Your task to perform on an android device: Open Amazon Image 0: 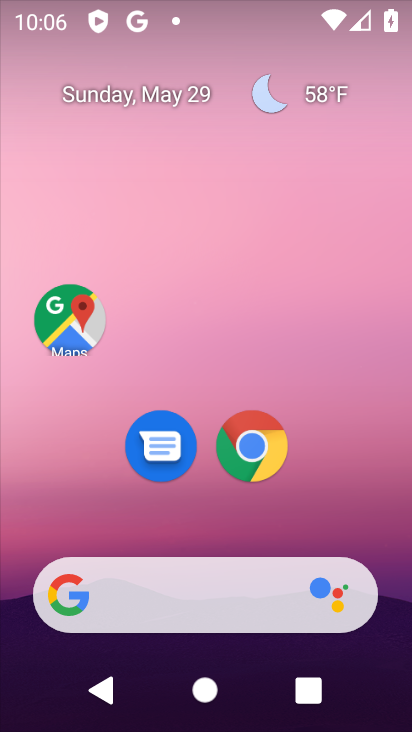
Step 0: drag from (315, 359) to (239, 0)
Your task to perform on an android device: Open Amazon Image 1: 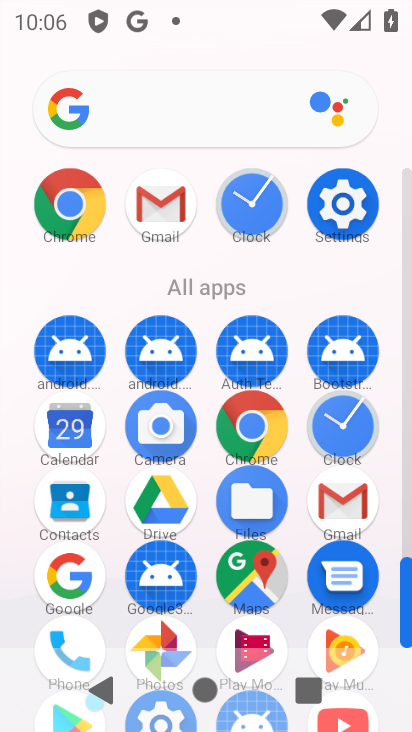
Step 1: drag from (16, 598) to (35, 274)
Your task to perform on an android device: Open Amazon Image 2: 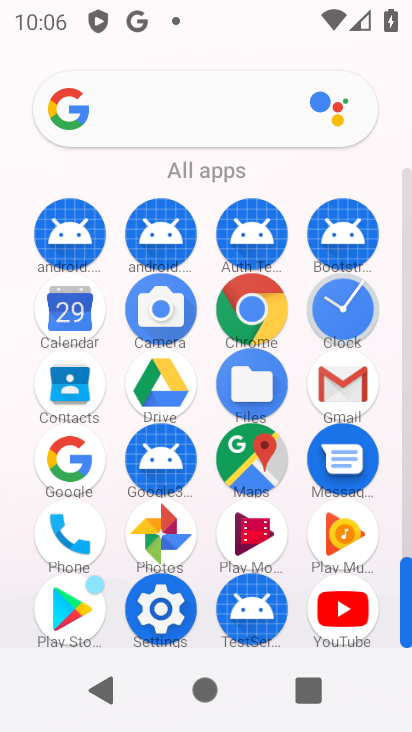
Step 2: click (249, 307)
Your task to perform on an android device: Open Amazon Image 3: 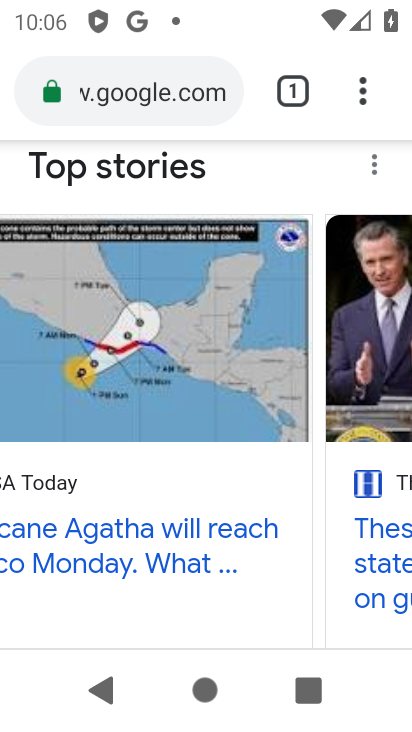
Step 3: click (153, 90)
Your task to perform on an android device: Open Amazon Image 4: 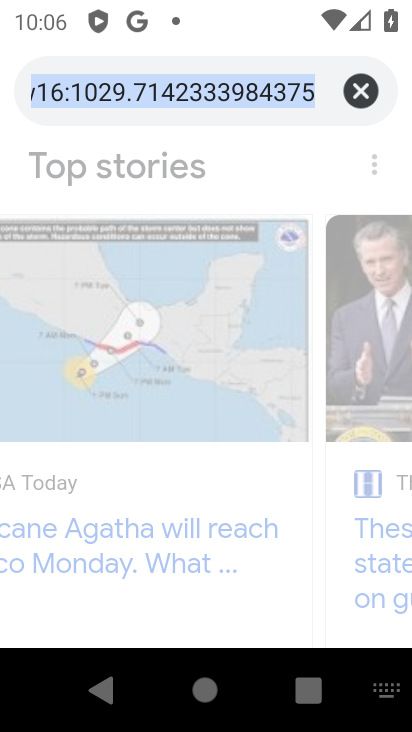
Step 4: click (362, 86)
Your task to perform on an android device: Open Amazon Image 5: 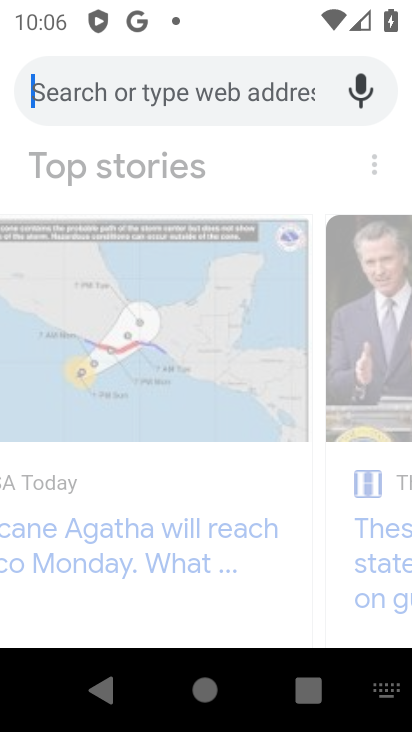
Step 5: type "Amazon"
Your task to perform on an android device: Open Amazon Image 6: 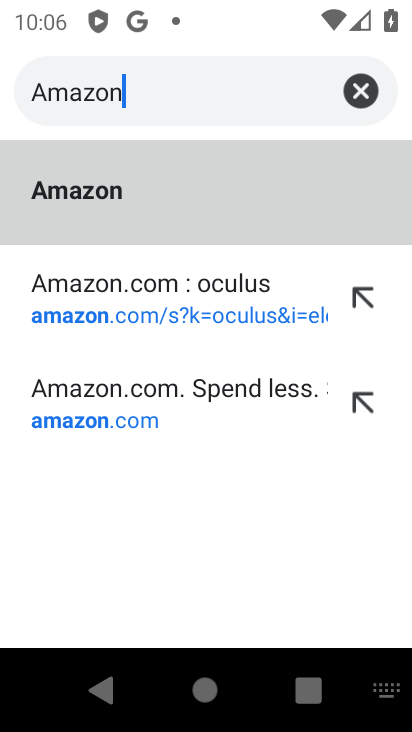
Step 6: type ""
Your task to perform on an android device: Open Amazon Image 7: 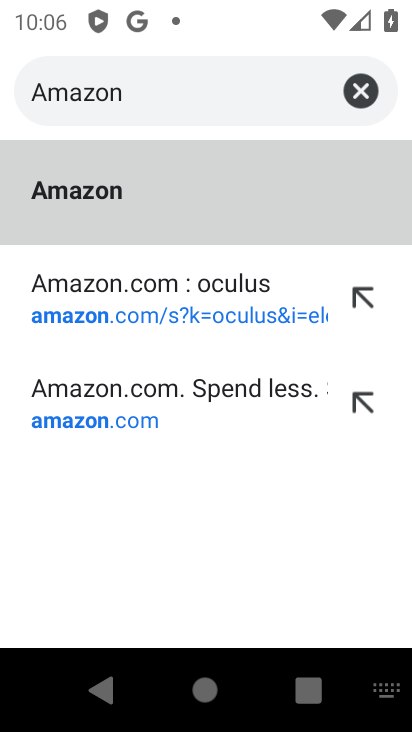
Step 7: click (124, 273)
Your task to perform on an android device: Open Amazon Image 8: 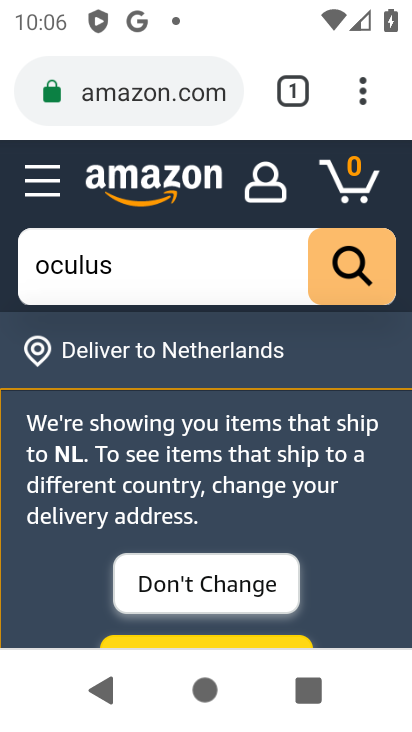
Step 8: task complete